Your task to perform on an android device: find snoozed emails in the gmail app Image 0: 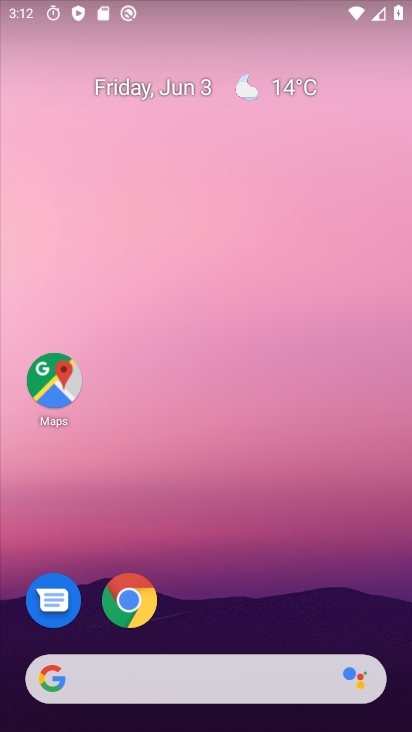
Step 0: drag from (364, 578) to (236, 0)
Your task to perform on an android device: find snoozed emails in the gmail app Image 1: 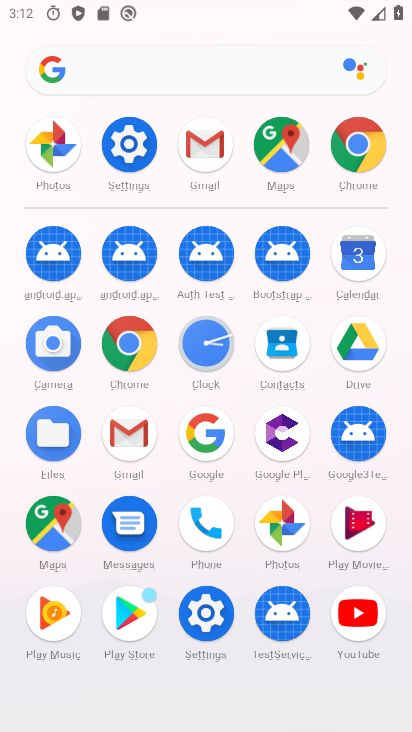
Step 1: click (124, 429)
Your task to perform on an android device: find snoozed emails in the gmail app Image 2: 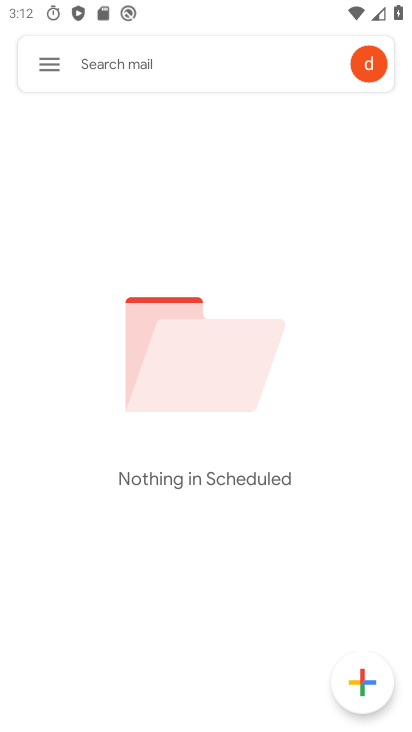
Step 2: click (46, 62)
Your task to perform on an android device: find snoozed emails in the gmail app Image 3: 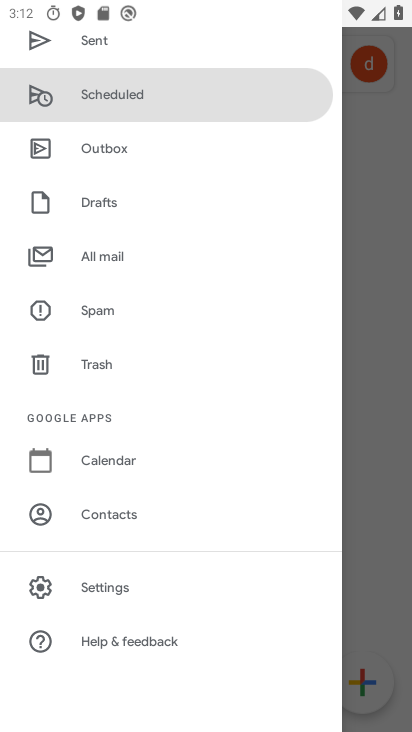
Step 3: drag from (225, 322) to (226, 108)
Your task to perform on an android device: find snoozed emails in the gmail app Image 4: 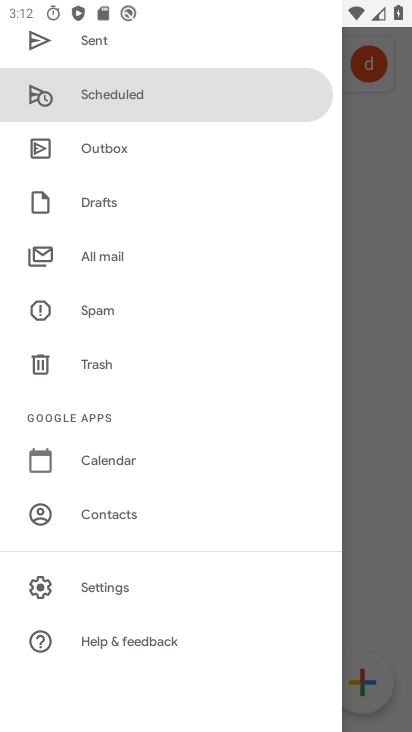
Step 4: drag from (147, 133) to (172, 417)
Your task to perform on an android device: find snoozed emails in the gmail app Image 5: 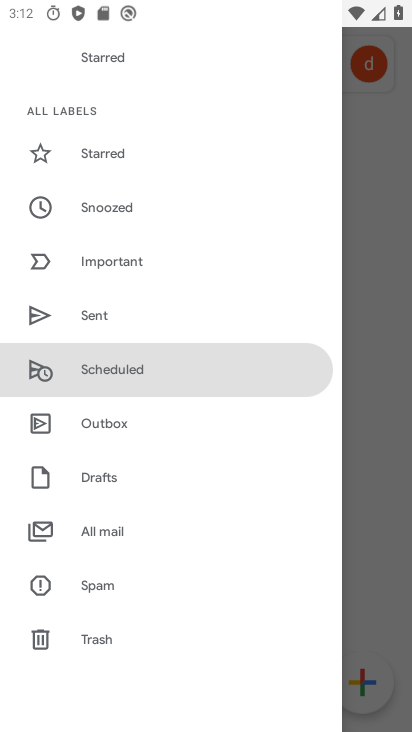
Step 5: click (115, 205)
Your task to perform on an android device: find snoozed emails in the gmail app Image 6: 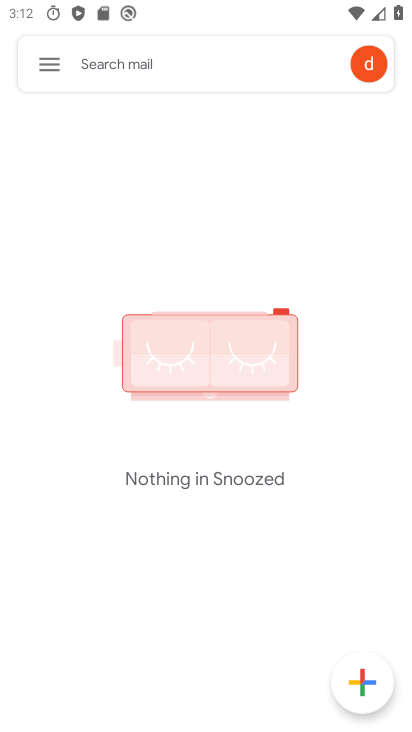
Step 6: task complete